Your task to perform on an android device: toggle sleep mode Image 0: 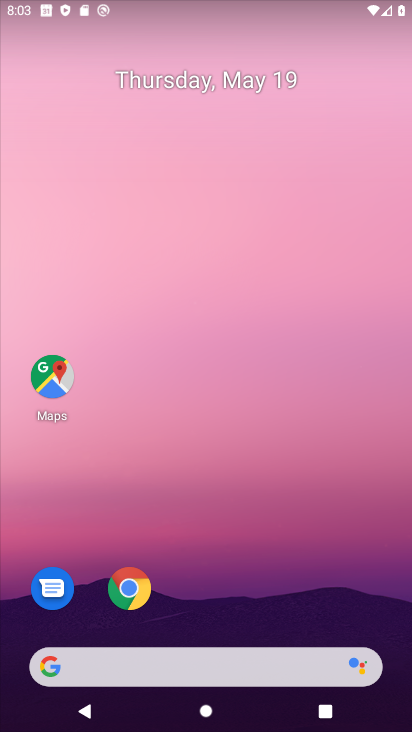
Step 0: drag from (224, 727) to (272, 230)
Your task to perform on an android device: toggle sleep mode Image 1: 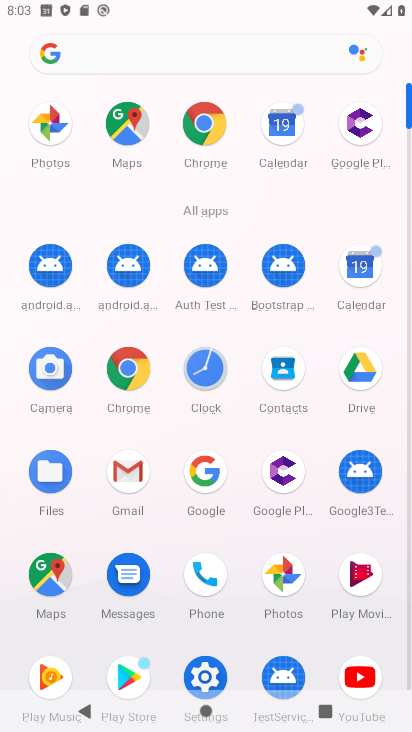
Step 1: click (206, 665)
Your task to perform on an android device: toggle sleep mode Image 2: 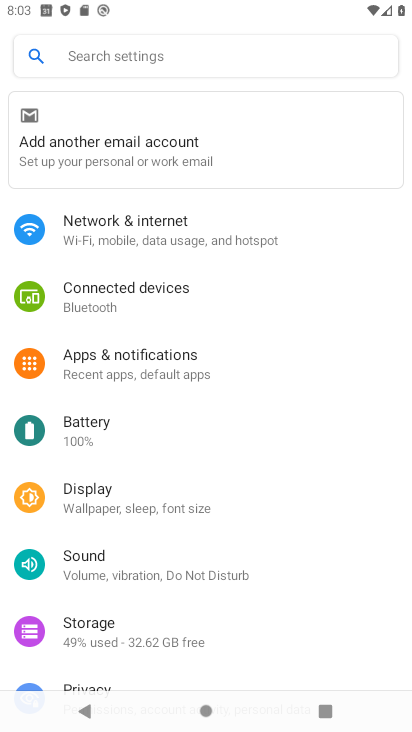
Step 2: task complete